Your task to perform on an android device: Search for pizza restaurants on Maps Image 0: 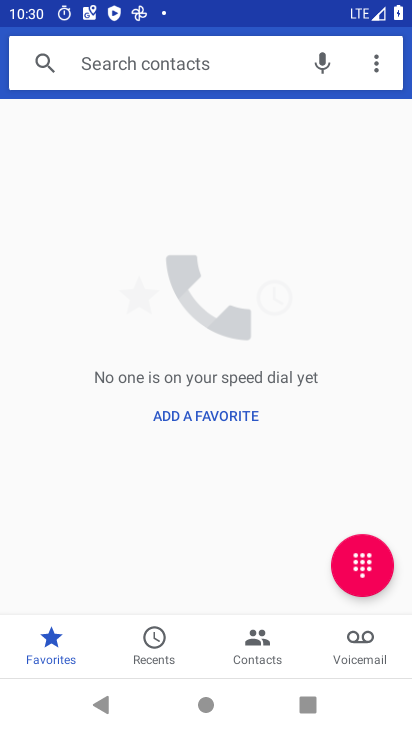
Step 0: press home button
Your task to perform on an android device: Search for pizza restaurants on Maps Image 1: 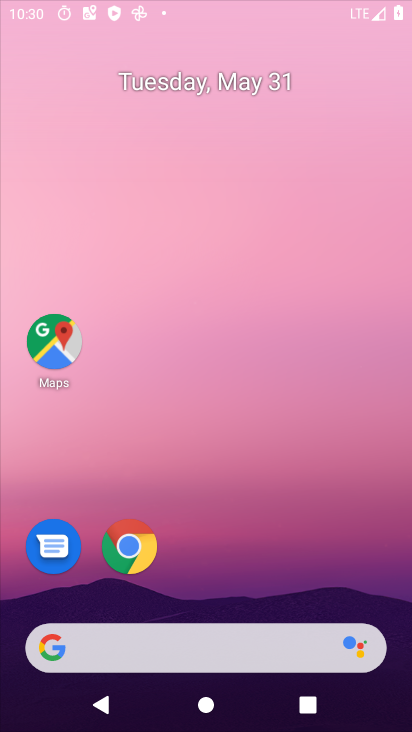
Step 1: press home button
Your task to perform on an android device: Search for pizza restaurants on Maps Image 2: 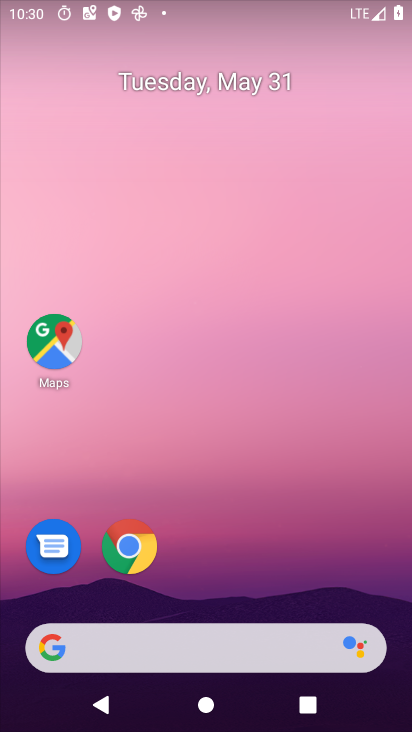
Step 2: click (55, 336)
Your task to perform on an android device: Search for pizza restaurants on Maps Image 3: 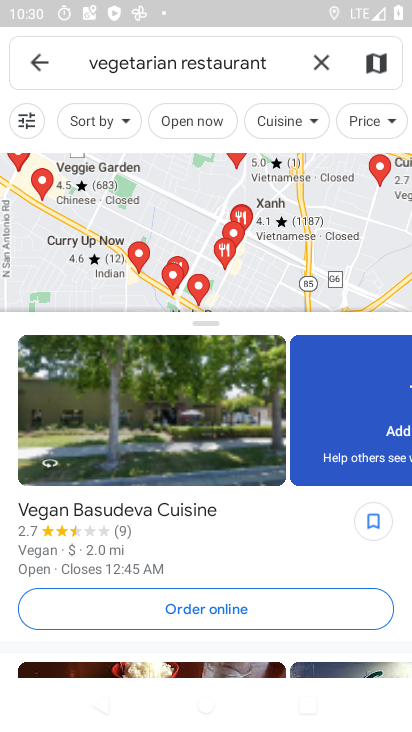
Step 3: click (314, 53)
Your task to perform on an android device: Search for pizza restaurants on Maps Image 4: 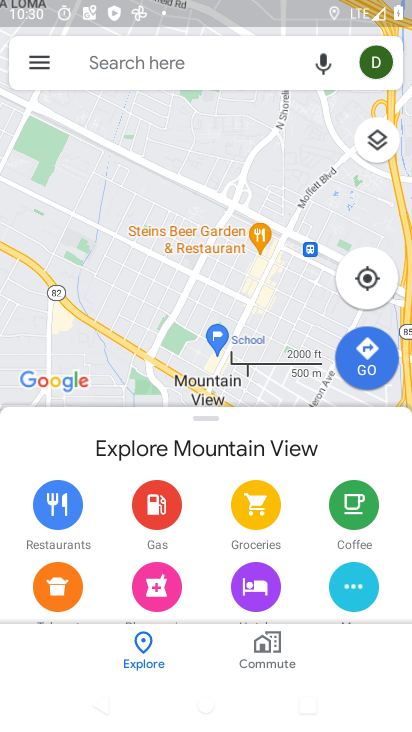
Step 4: click (269, 56)
Your task to perform on an android device: Search for pizza restaurants on Maps Image 5: 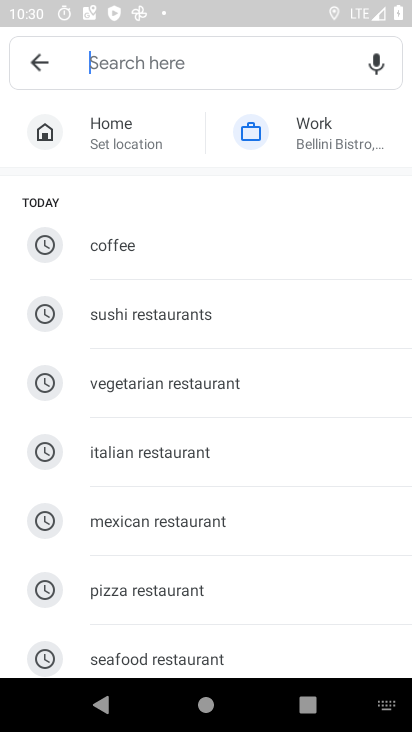
Step 5: click (154, 591)
Your task to perform on an android device: Search for pizza restaurants on Maps Image 6: 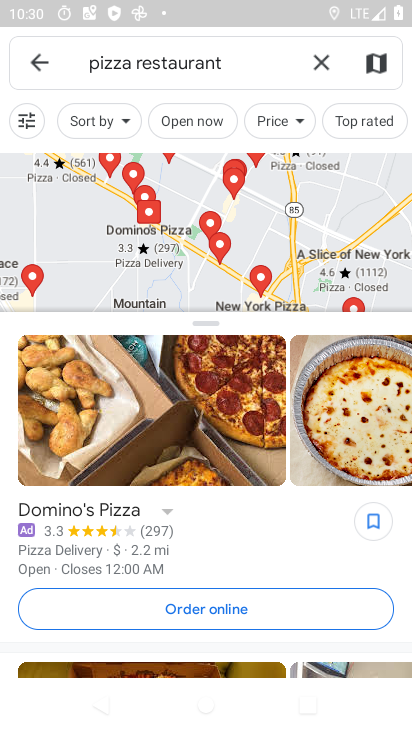
Step 6: task complete